Your task to perform on an android device: Check the news Image 0: 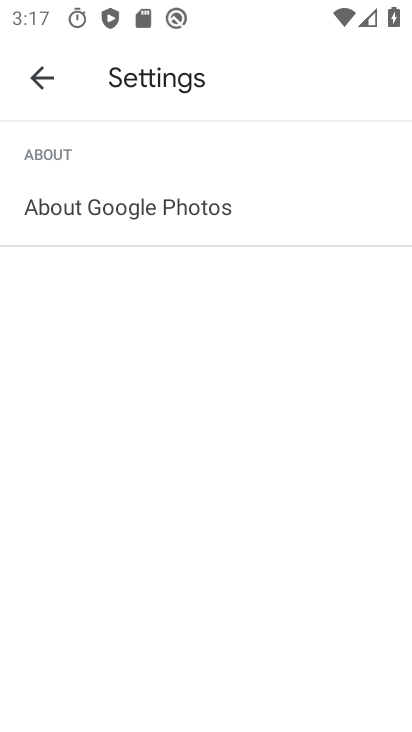
Step 0: press home button
Your task to perform on an android device: Check the news Image 1: 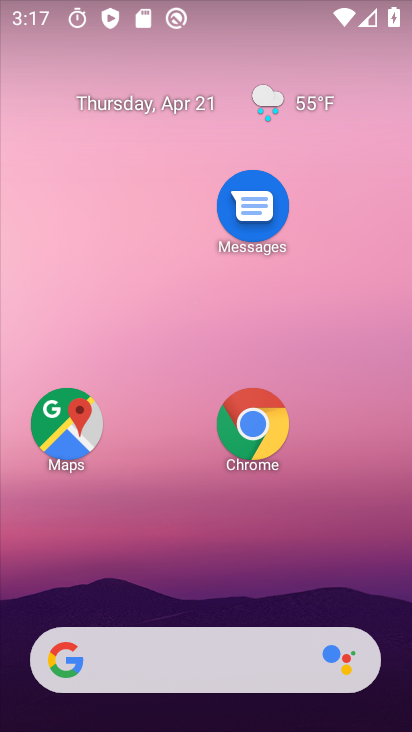
Step 1: drag from (159, 531) to (125, 115)
Your task to perform on an android device: Check the news Image 2: 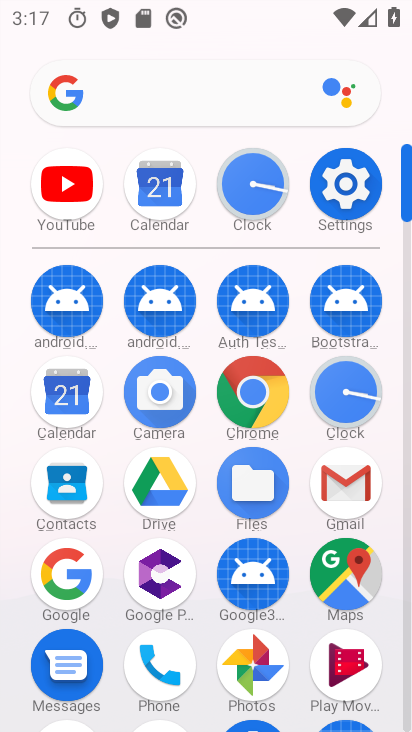
Step 2: drag from (211, 513) to (205, 129)
Your task to perform on an android device: Check the news Image 3: 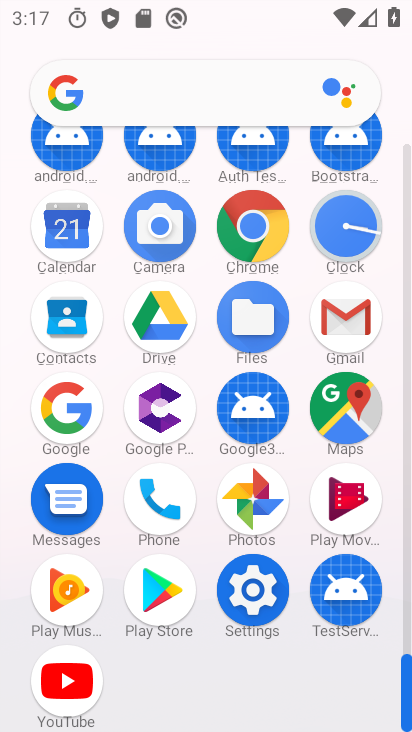
Step 3: drag from (195, 248) to (221, 425)
Your task to perform on an android device: Check the news Image 4: 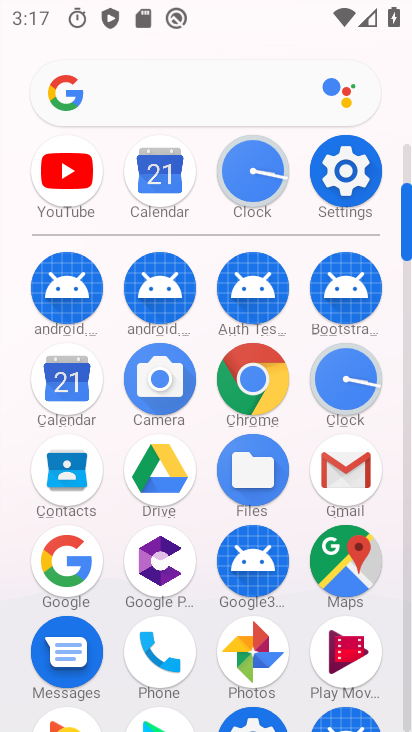
Step 4: click (64, 568)
Your task to perform on an android device: Check the news Image 5: 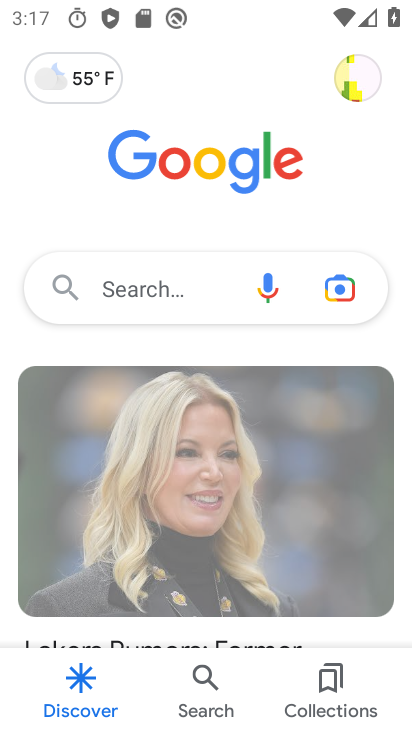
Step 5: click (168, 296)
Your task to perform on an android device: Check the news Image 6: 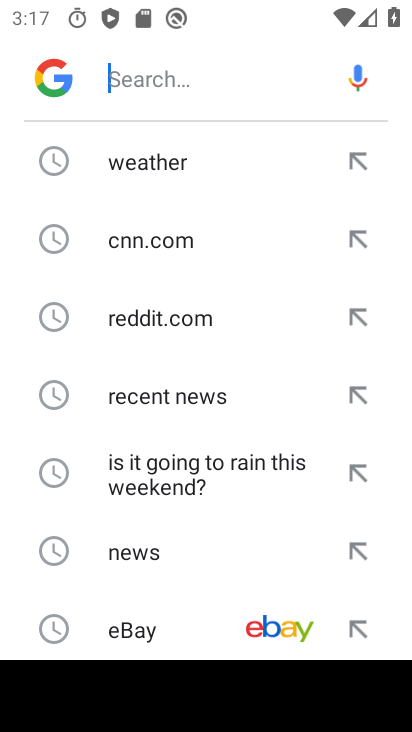
Step 6: click (162, 549)
Your task to perform on an android device: Check the news Image 7: 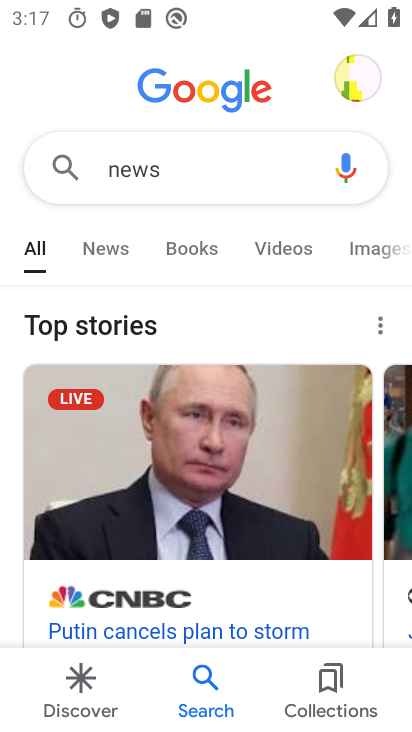
Step 7: task complete